Your task to perform on an android device: Open internet settings Image 0: 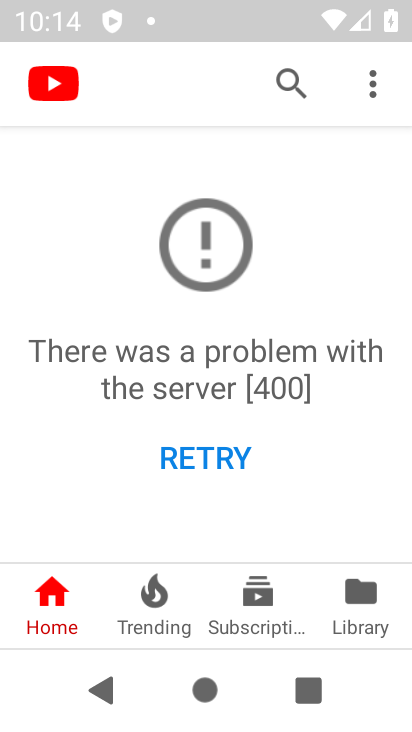
Step 0: press home button
Your task to perform on an android device: Open internet settings Image 1: 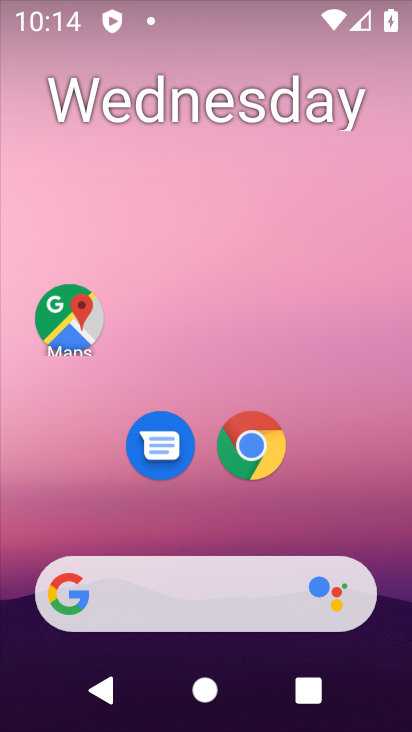
Step 1: drag from (238, 709) to (248, 71)
Your task to perform on an android device: Open internet settings Image 2: 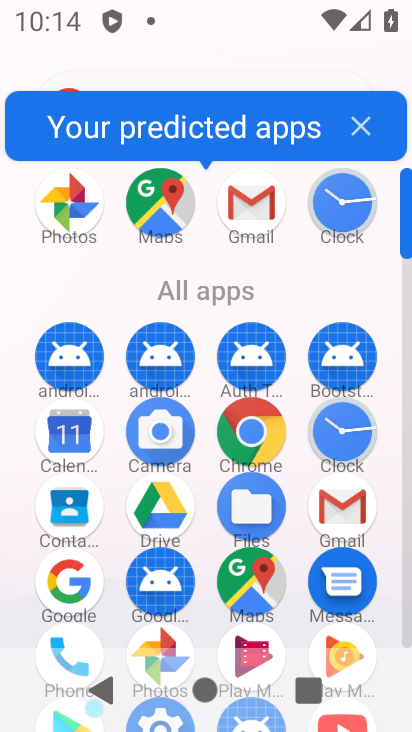
Step 2: drag from (19, 568) to (39, 152)
Your task to perform on an android device: Open internet settings Image 3: 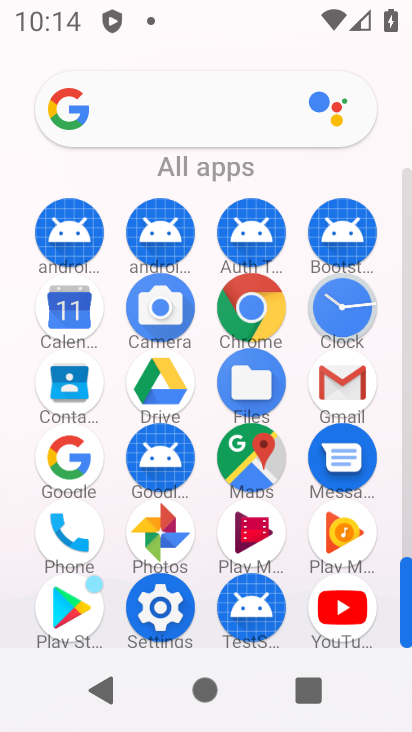
Step 3: click (161, 602)
Your task to perform on an android device: Open internet settings Image 4: 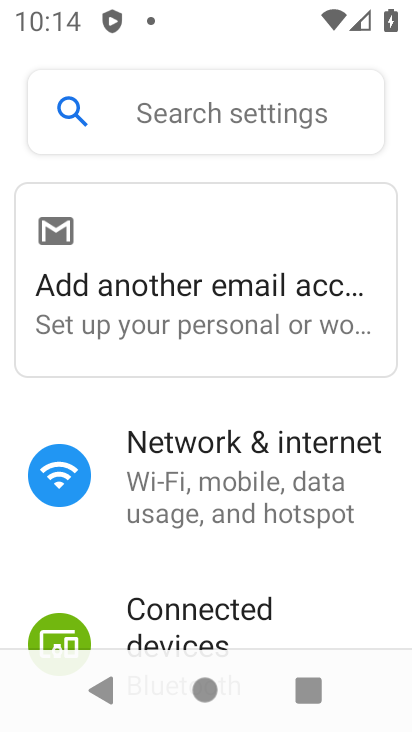
Step 4: click (233, 463)
Your task to perform on an android device: Open internet settings Image 5: 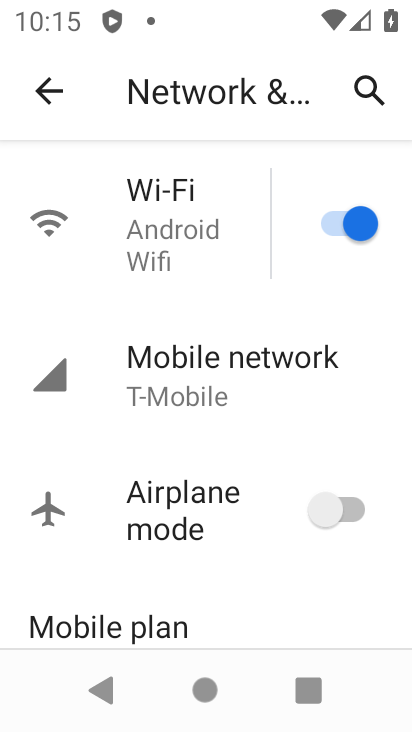
Step 5: click (147, 215)
Your task to perform on an android device: Open internet settings Image 6: 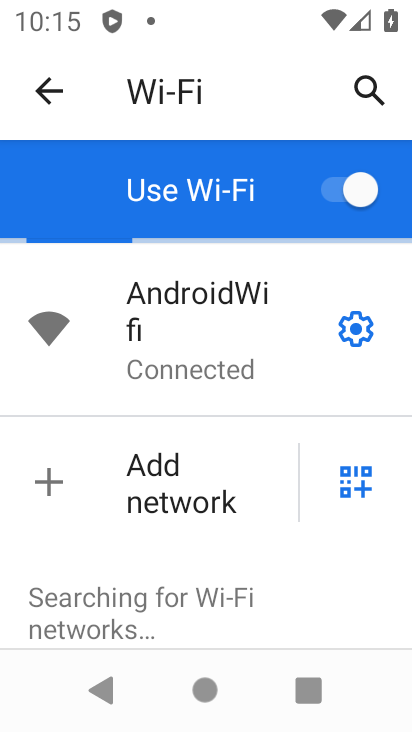
Step 6: task complete